Your task to perform on an android device: Go to Maps Image 0: 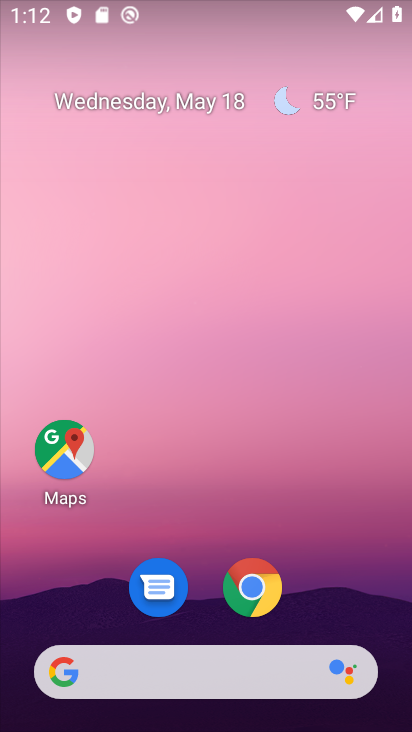
Step 0: click (65, 448)
Your task to perform on an android device: Go to Maps Image 1: 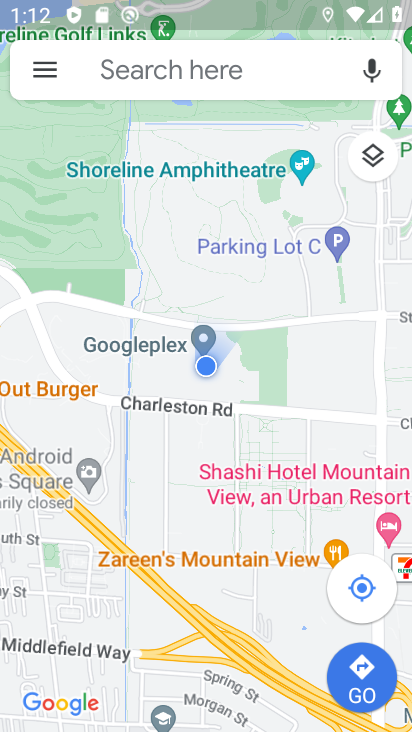
Step 1: task complete